Your task to perform on an android device: turn on javascript in the chrome app Image 0: 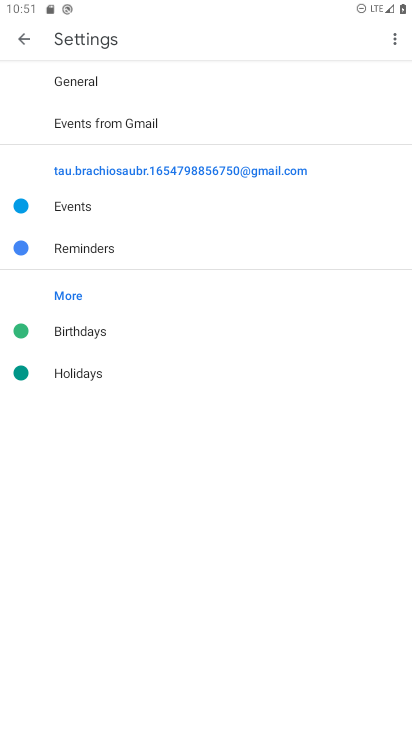
Step 0: press home button
Your task to perform on an android device: turn on javascript in the chrome app Image 1: 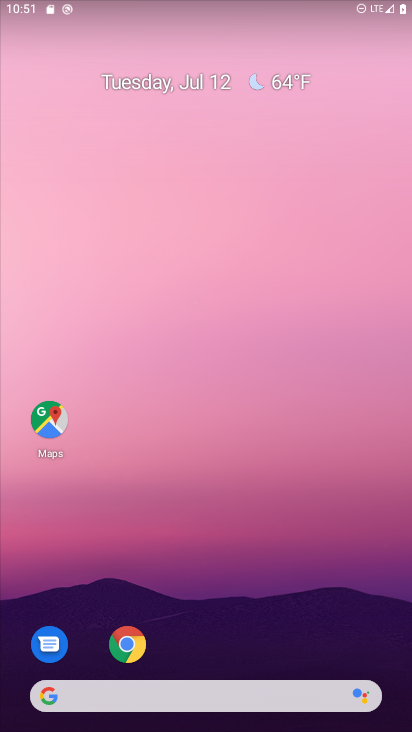
Step 1: click (118, 639)
Your task to perform on an android device: turn on javascript in the chrome app Image 2: 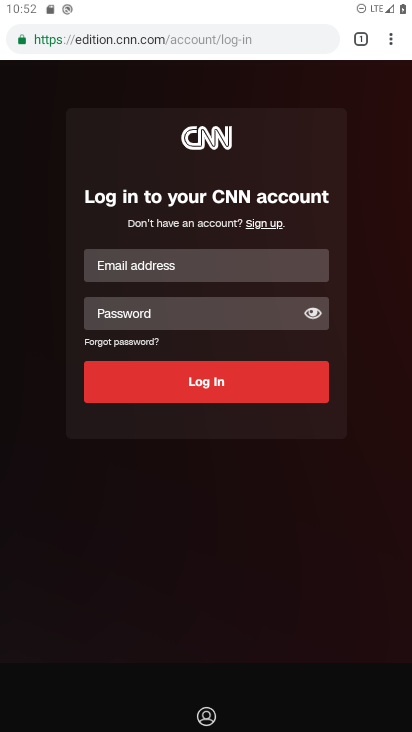
Step 2: click (381, 53)
Your task to perform on an android device: turn on javascript in the chrome app Image 3: 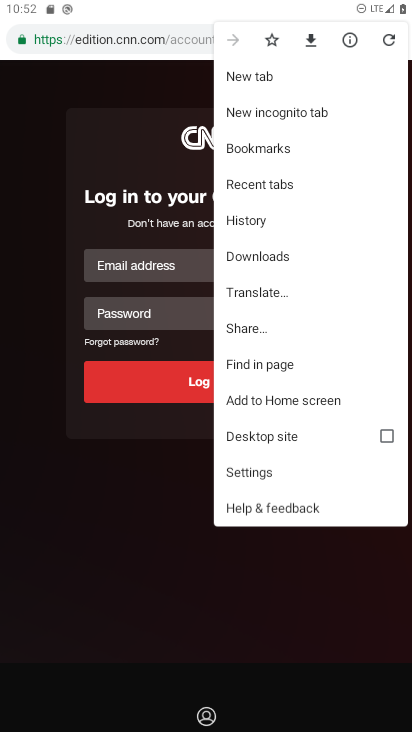
Step 3: click (388, 49)
Your task to perform on an android device: turn on javascript in the chrome app Image 4: 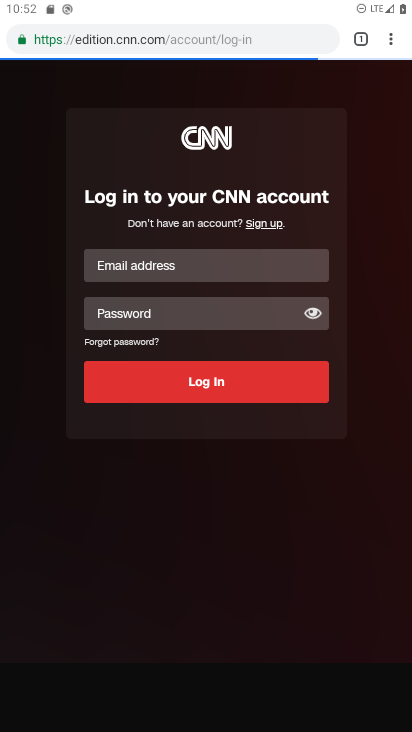
Step 4: click (394, 42)
Your task to perform on an android device: turn on javascript in the chrome app Image 5: 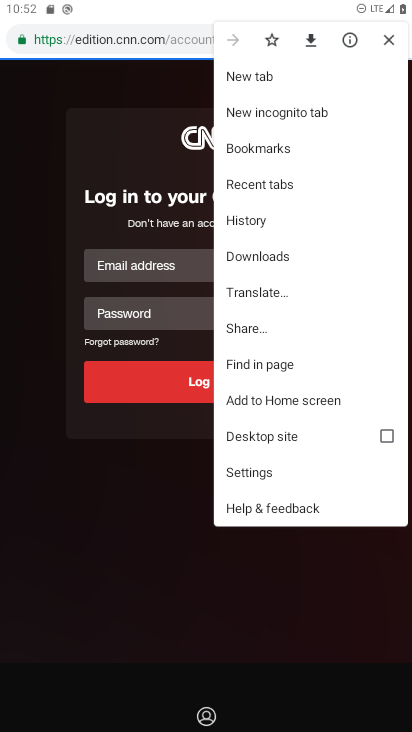
Step 5: click (270, 460)
Your task to perform on an android device: turn on javascript in the chrome app Image 6: 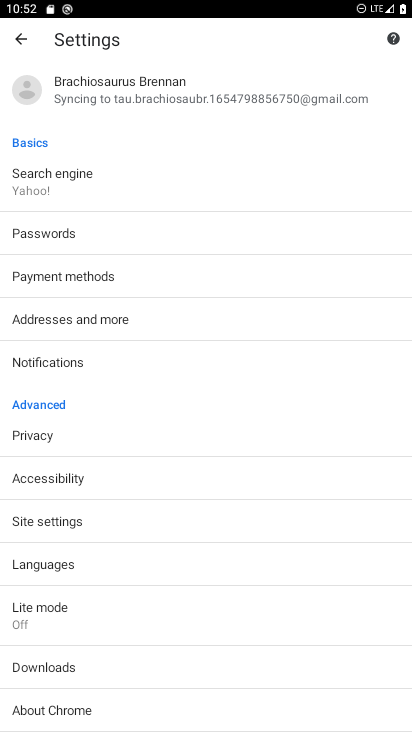
Step 6: click (122, 527)
Your task to perform on an android device: turn on javascript in the chrome app Image 7: 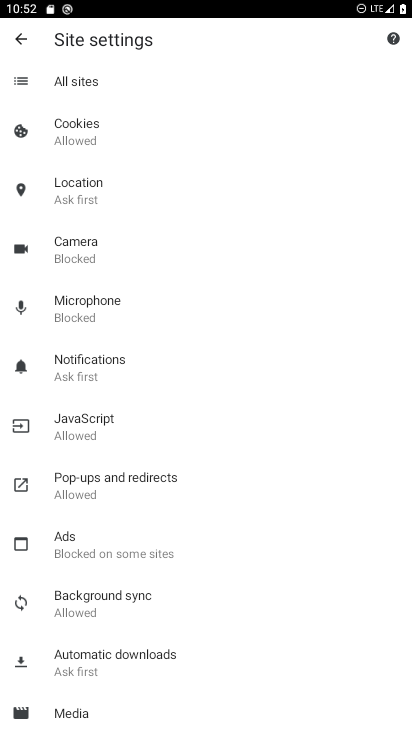
Step 7: click (186, 425)
Your task to perform on an android device: turn on javascript in the chrome app Image 8: 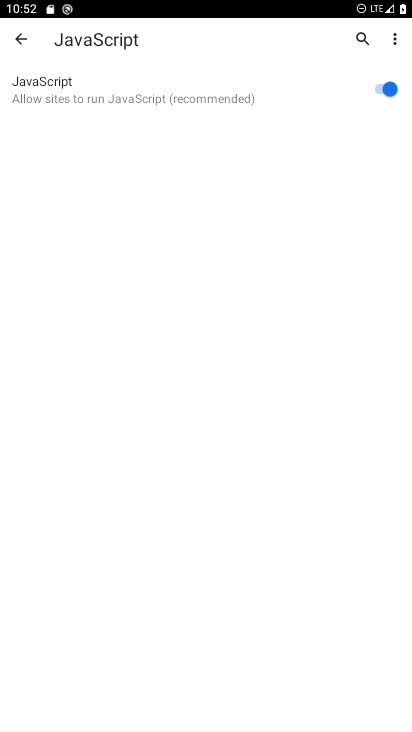
Step 8: task complete